Your task to perform on an android device: Set the phone to "Do not disturb". Image 0: 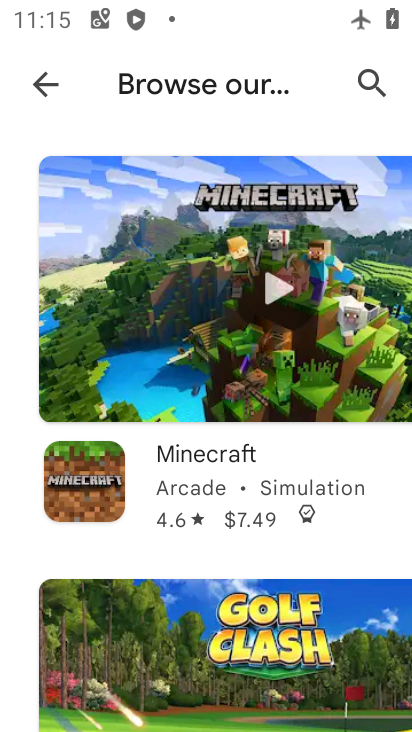
Step 0: press home button
Your task to perform on an android device: Set the phone to "Do not disturb". Image 1: 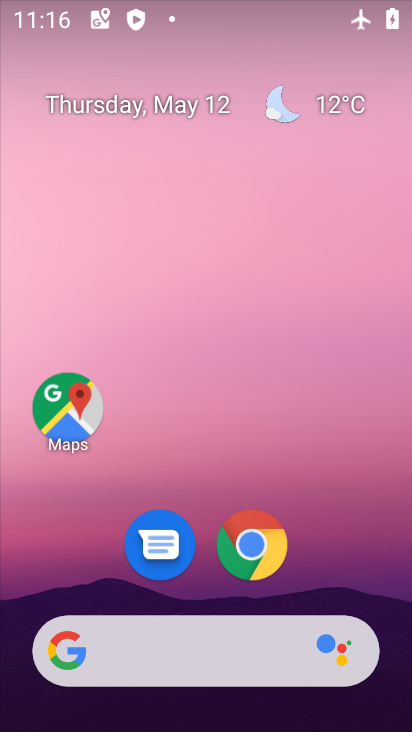
Step 1: drag from (190, 13) to (190, 575)
Your task to perform on an android device: Set the phone to "Do not disturb". Image 2: 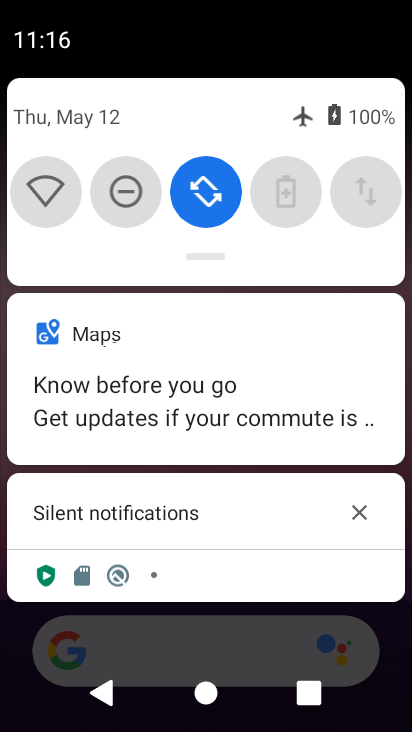
Step 2: click (124, 189)
Your task to perform on an android device: Set the phone to "Do not disturb". Image 3: 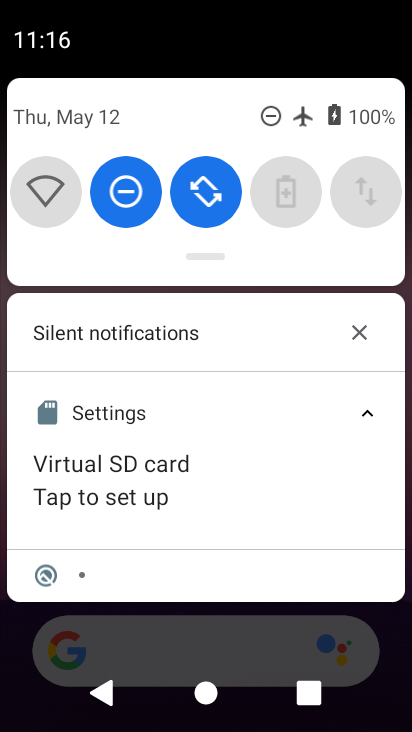
Step 3: task complete